Your task to perform on an android device: Play the last video I watched on Youtube Image 0: 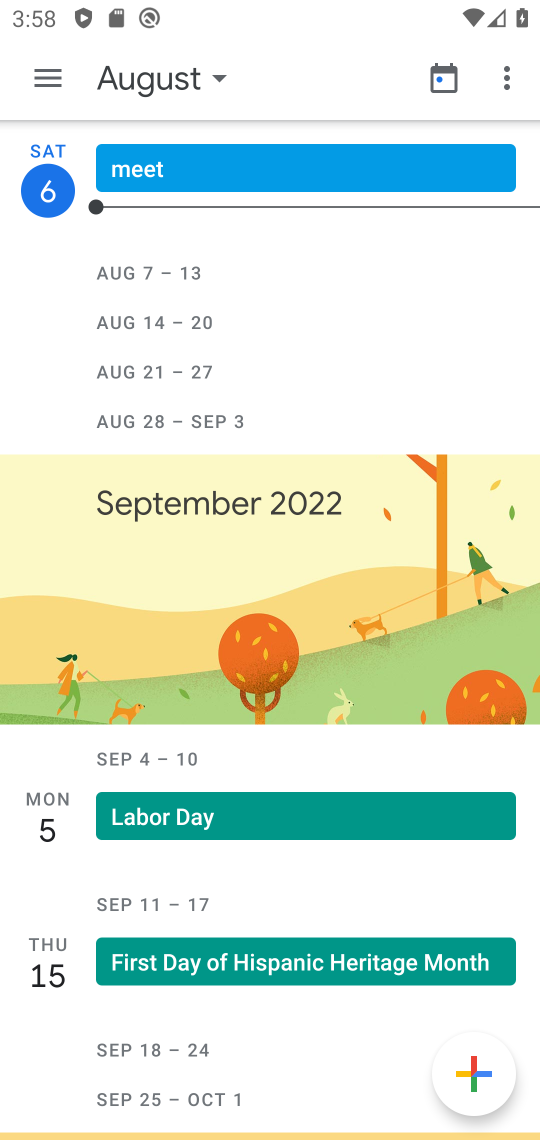
Step 0: press home button
Your task to perform on an android device: Play the last video I watched on Youtube Image 1: 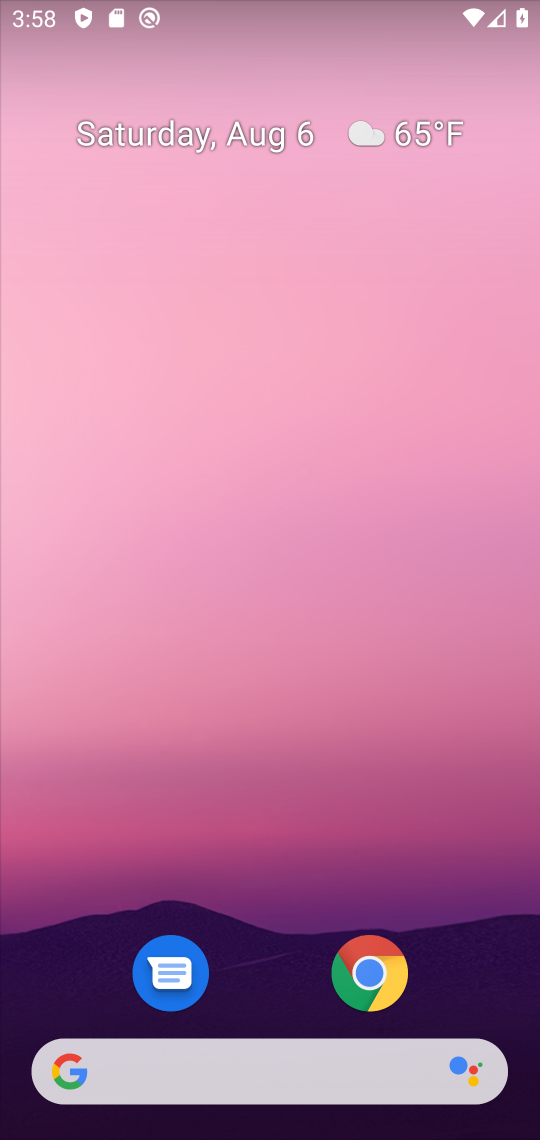
Step 1: drag from (264, 877) to (317, 29)
Your task to perform on an android device: Play the last video I watched on Youtube Image 2: 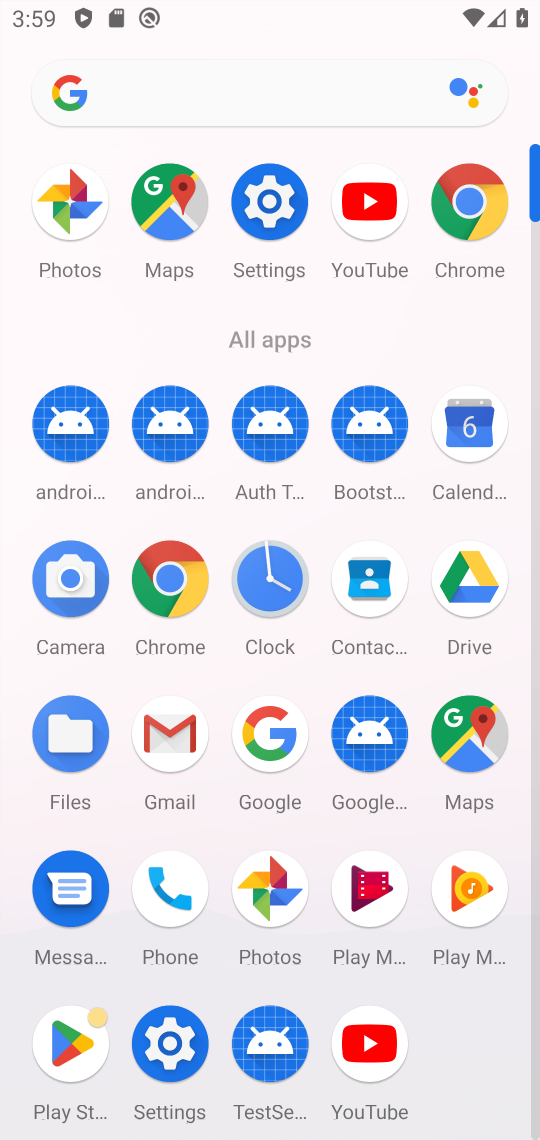
Step 2: click (366, 1038)
Your task to perform on an android device: Play the last video I watched on Youtube Image 3: 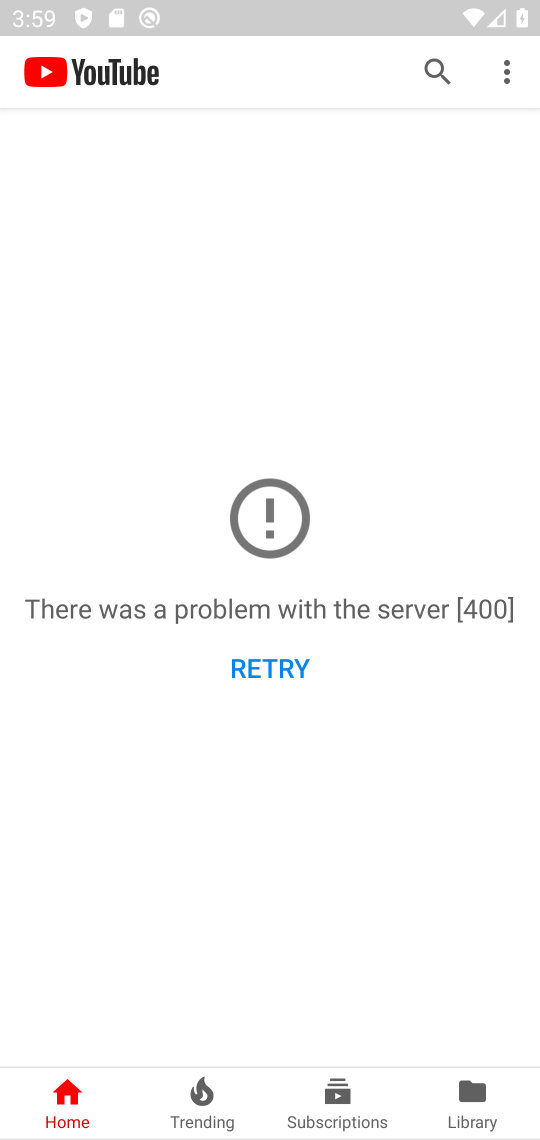
Step 3: task complete